Your task to perform on an android device: open sync settings in chrome Image 0: 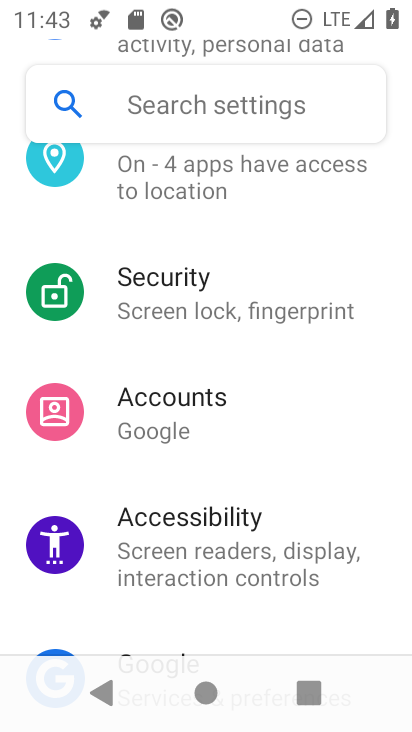
Step 0: press home button
Your task to perform on an android device: open sync settings in chrome Image 1: 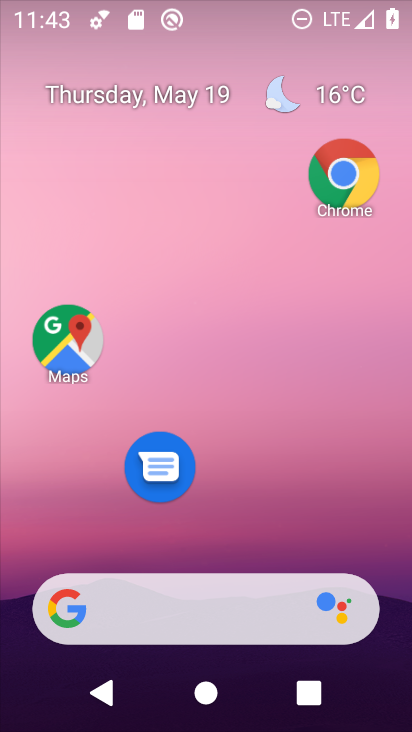
Step 1: drag from (289, 535) to (239, 225)
Your task to perform on an android device: open sync settings in chrome Image 2: 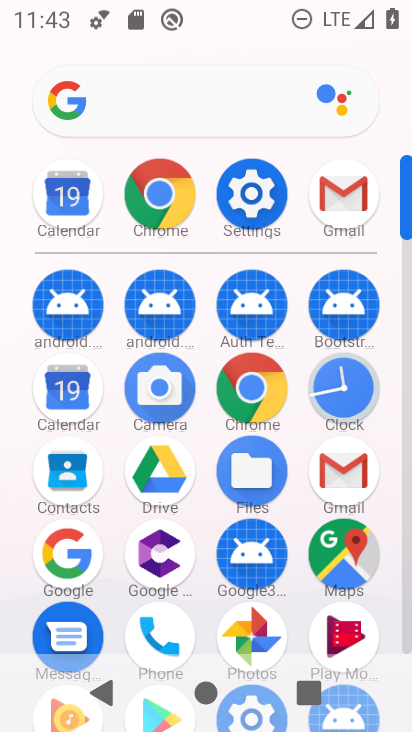
Step 2: click (148, 179)
Your task to perform on an android device: open sync settings in chrome Image 3: 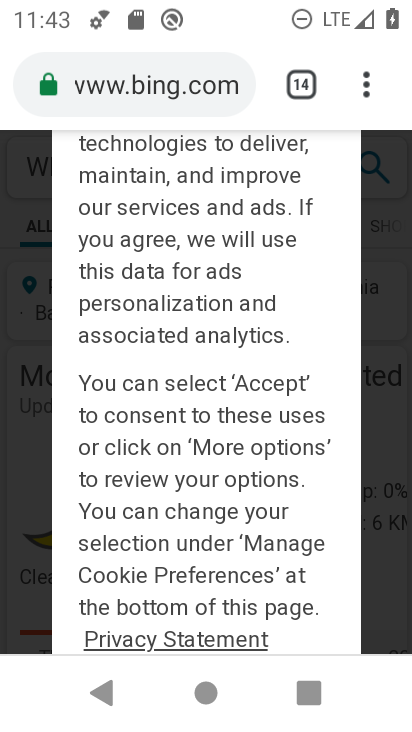
Step 3: click (372, 84)
Your task to perform on an android device: open sync settings in chrome Image 4: 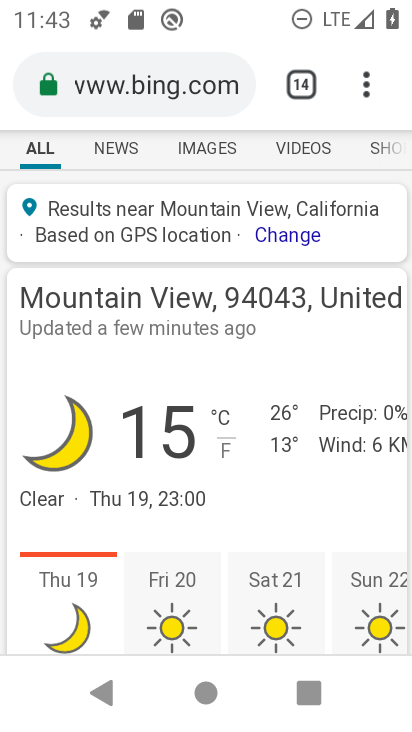
Step 4: click (361, 81)
Your task to perform on an android device: open sync settings in chrome Image 5: 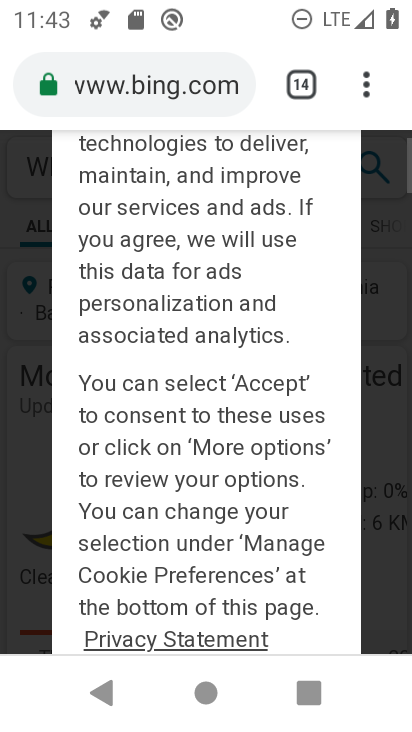
Step 5: click (360, 88)
Your task to perform on an android device: open sync settings in chrome Image 6: 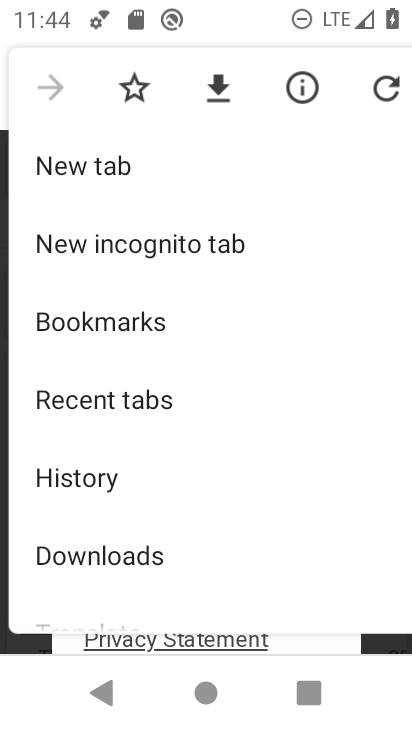
Step 6: drag from (251, 518) to (228, 216)
Your task to perform on an android device: open sync settings in chrome Image 7: 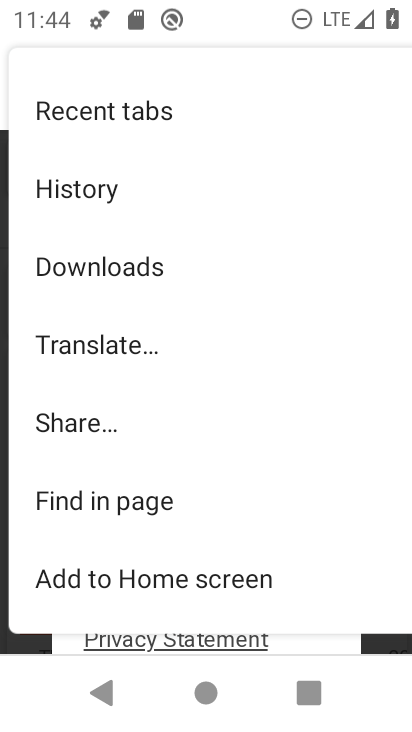
Step 7: drag from (220, 480) to (236, 190)
Your task to perform on an android device: open sync settings in chrome Image 8: 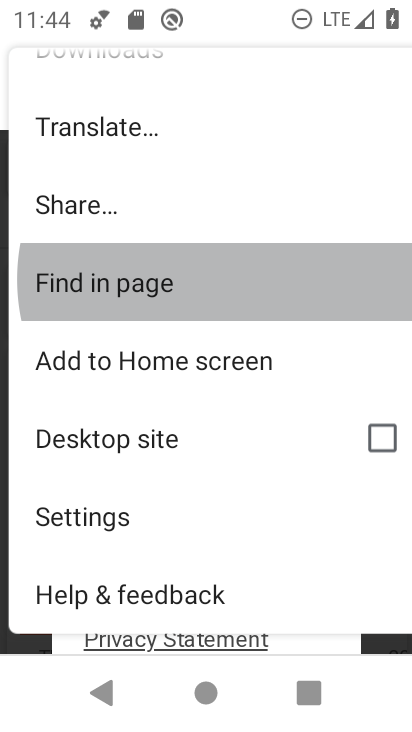
Step 8: drag from (228, 485) to (246, 270)
Your task to perform on an android device: open sync settings in chrome Image 9: 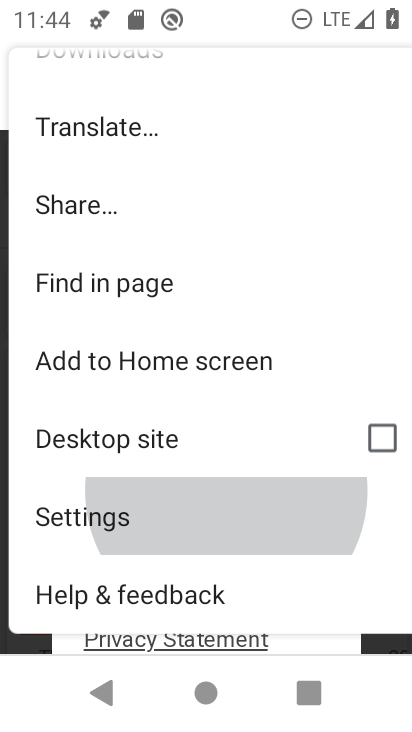
Step 9: drag from (243, 490) to (273, 190)
Your task to perform on an android device: open sync settings in chrome Image 10: 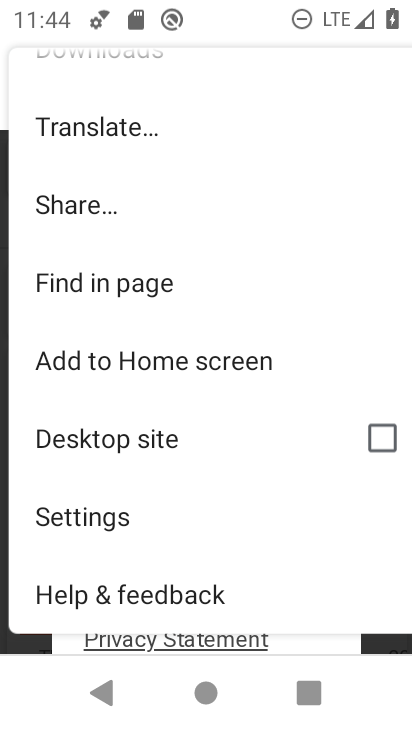
Step 10: click (134, 506)
Your task to perform on an android device: open sync settings in chrome Image 11: 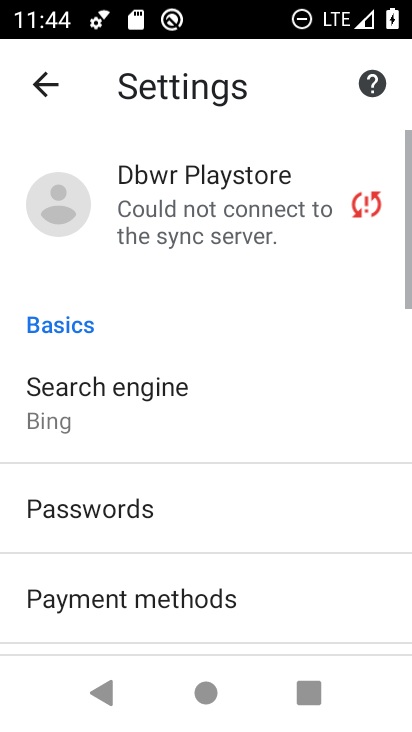
Step 11: click (134, 403)
Your task to perform on an android device: open sync settings in chrome Image 12: 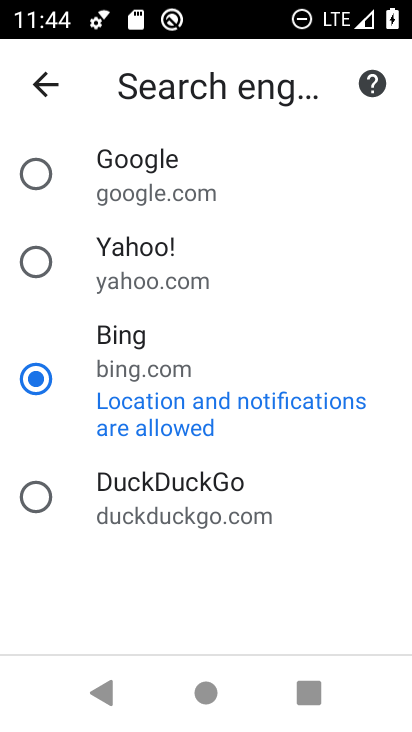
Step 12: click (134, 233)
Your task to perform on an android device: open sync settings in chrome Image 13: 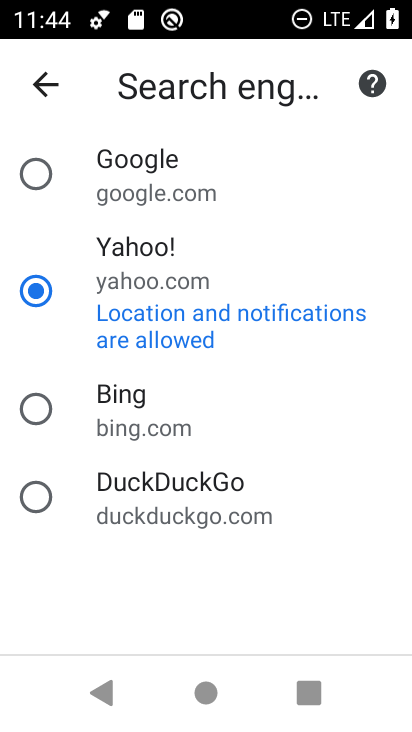
Step 13: task complete